Your task to perform on an android device: Open calendar and show me the fourth week of next month Image 0: 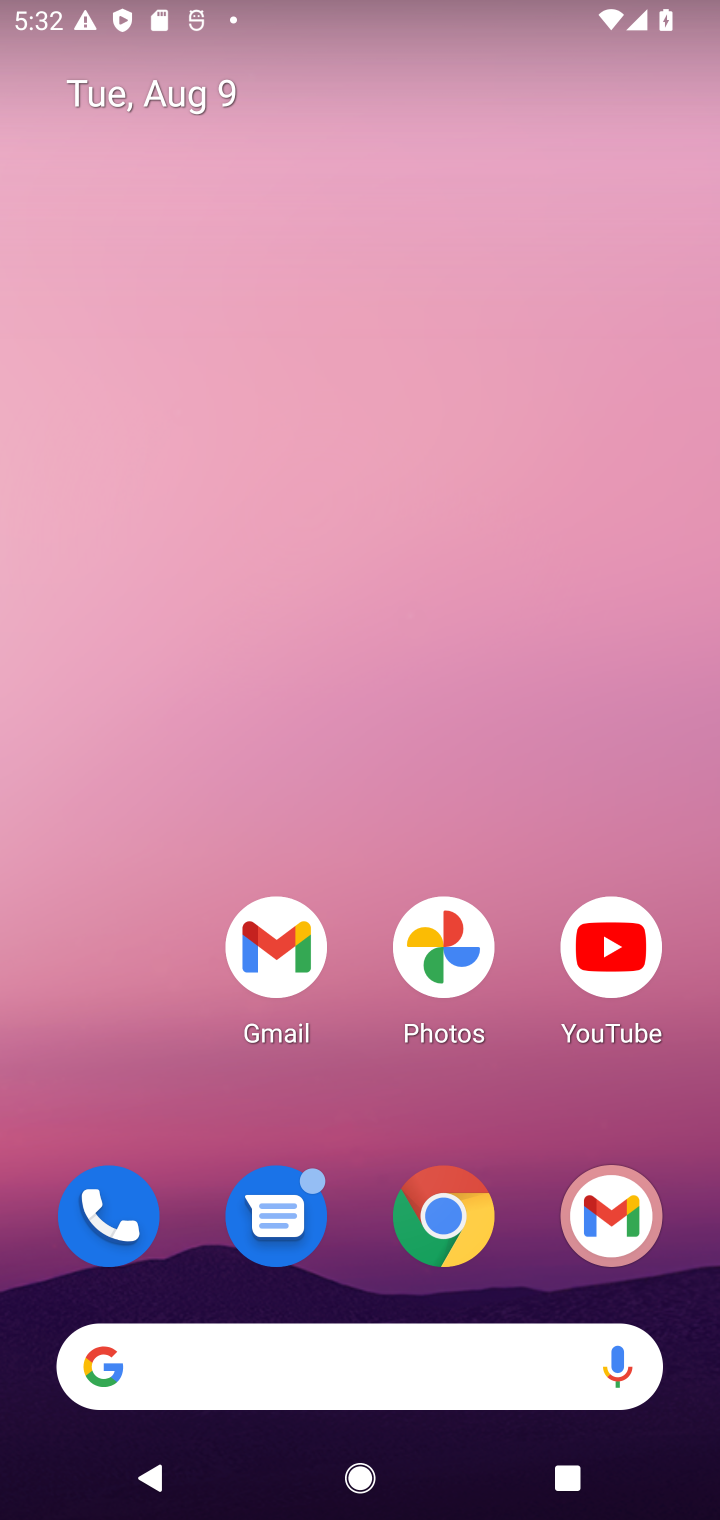
Step 0: drag from (308, 907) to (308, 363)
Your task to perform on an android device: Open calendar and show me the fourth week of next month Image 1: 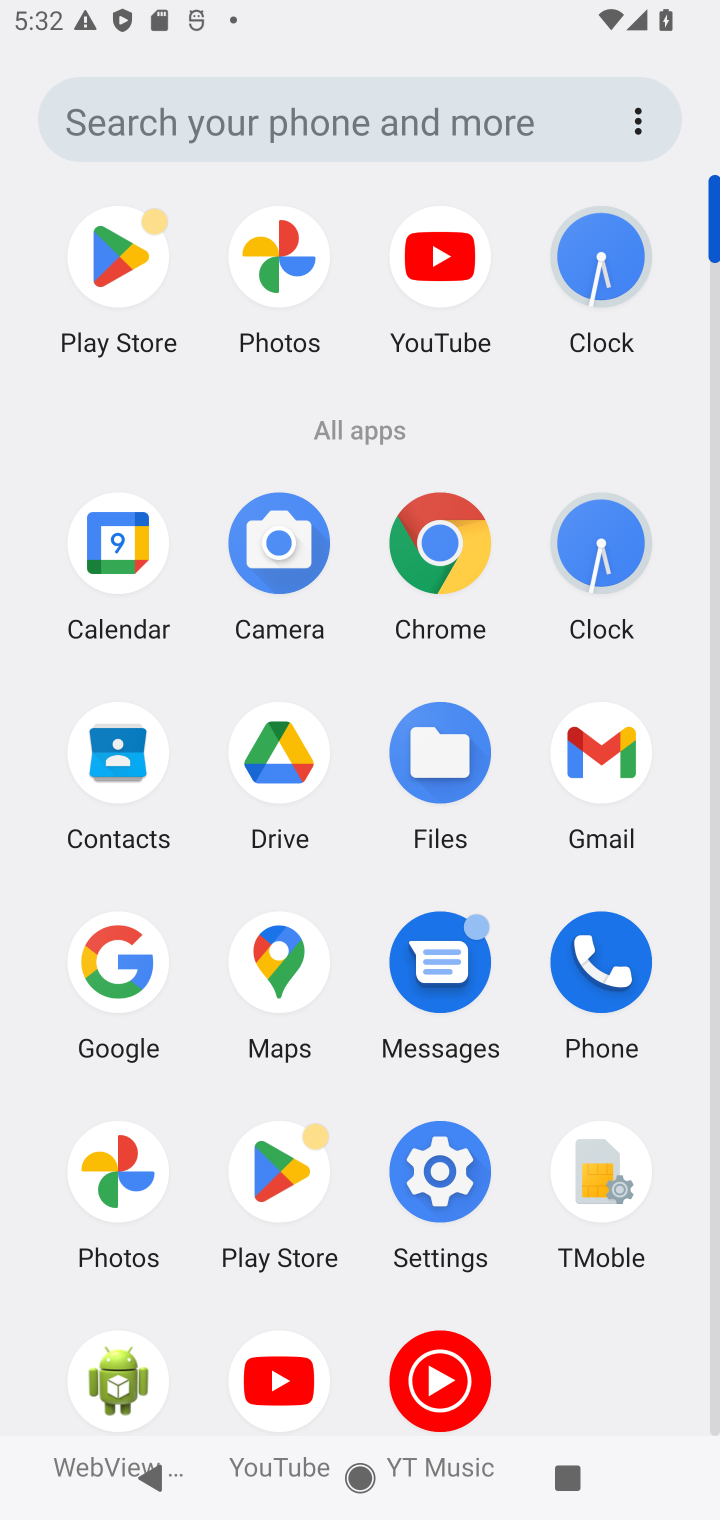
Step 1: click (123, 557)
Your task to perform on an android device: Open calendar and show me the fourth week of next month Image 2: 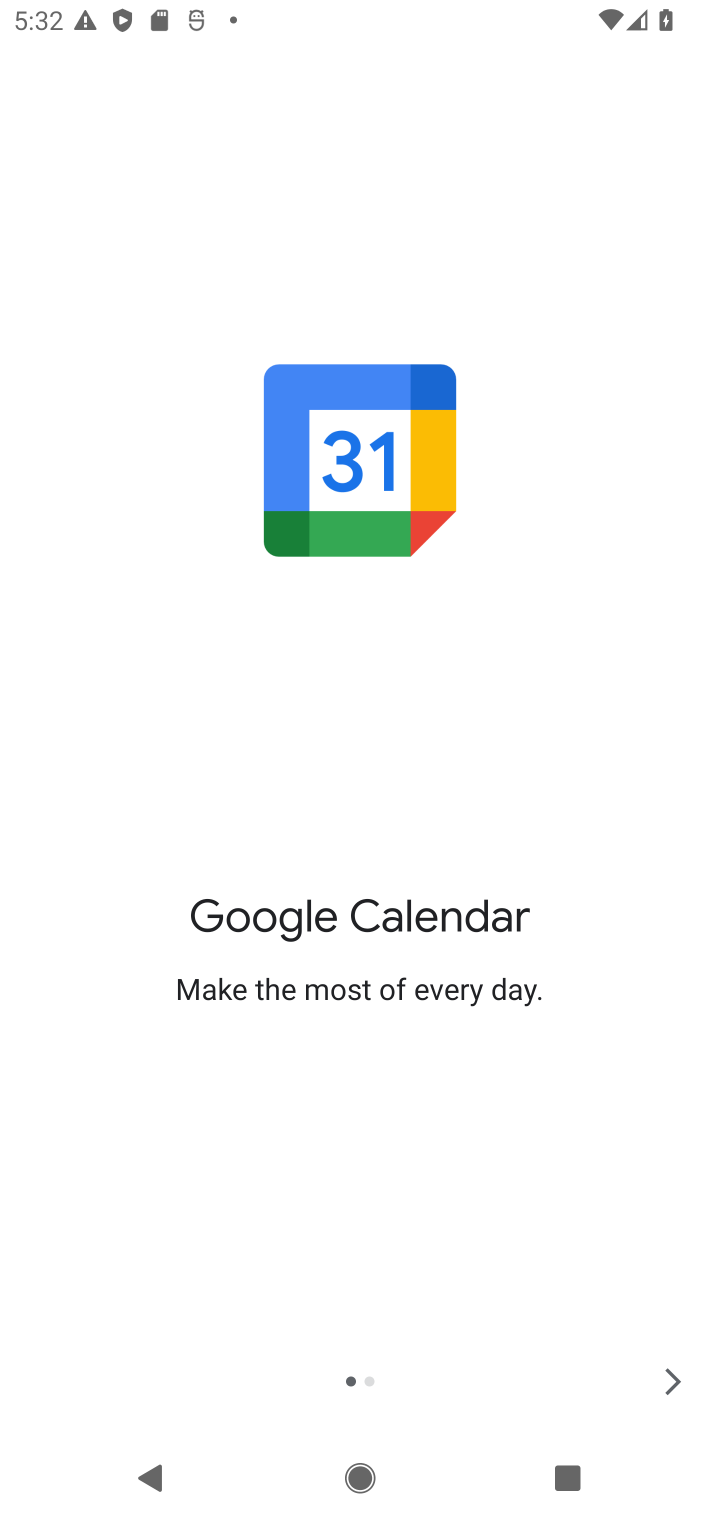
Step 2: click (664, 1382)
Your task to perform on an android device: Open calendar and show me the fourth week of next month Image 3: 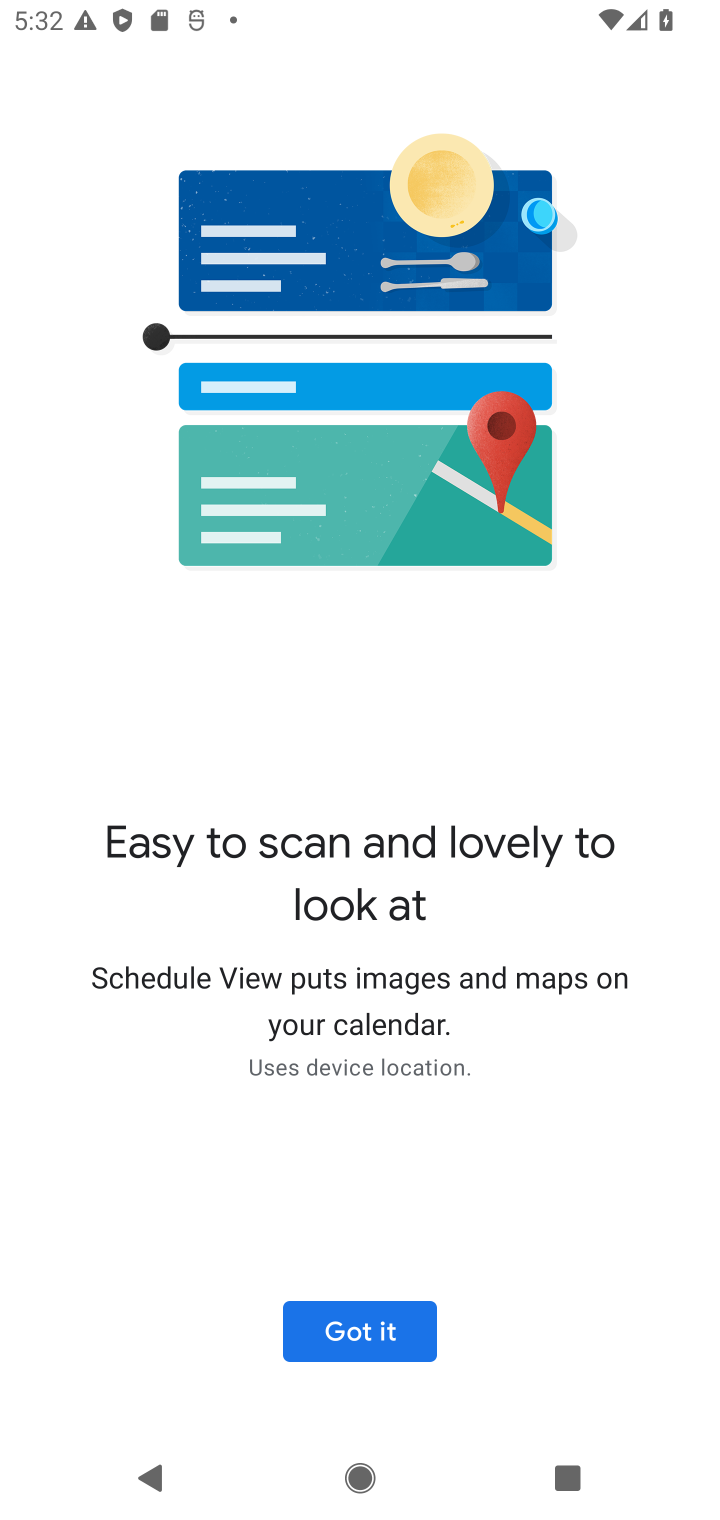
Step 3: click (361, 1336)
Your task to perform on an android device: Open calendar and show me the fourth week of next month Image 4: 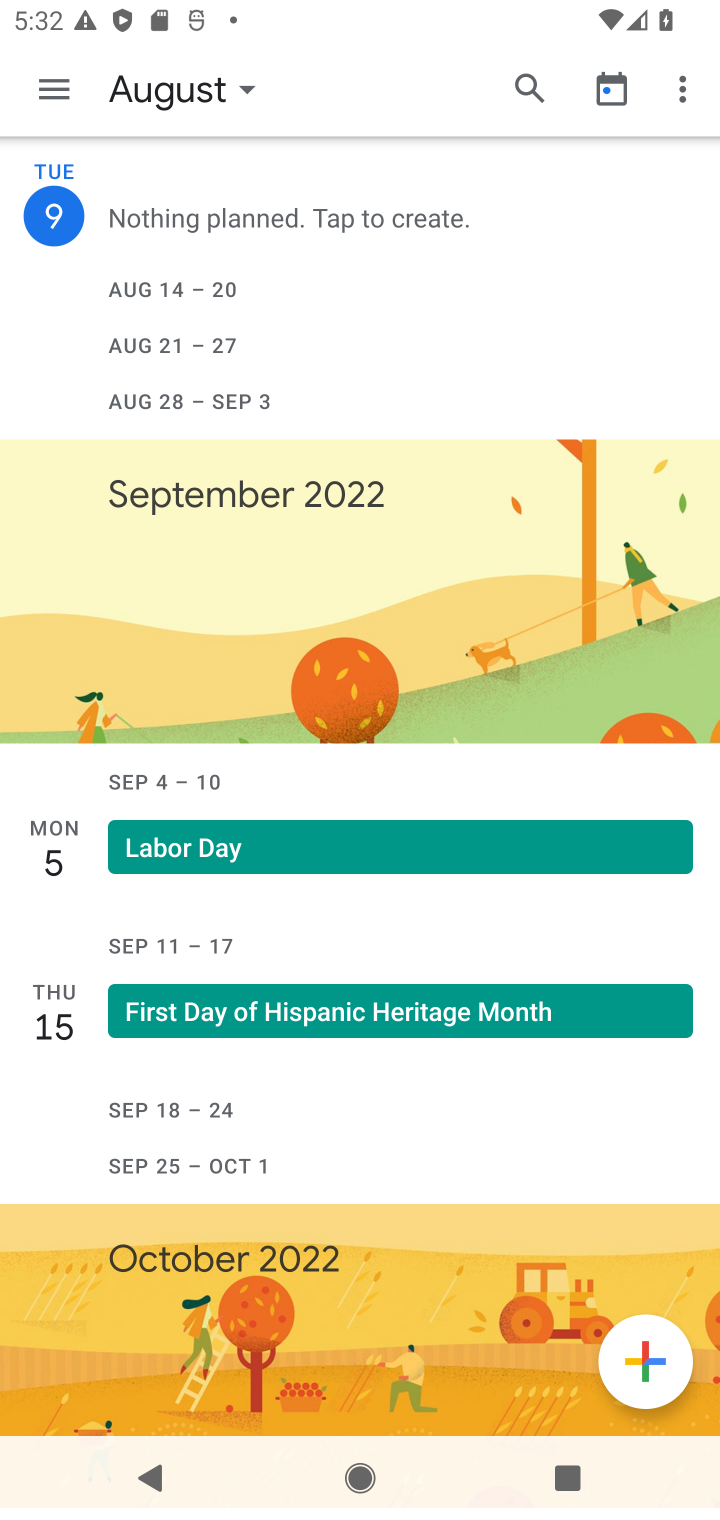
Step 4: click (168, 69)
Your task to perform on an android device: Open calendar and show me the fourth week of next month Image 5: 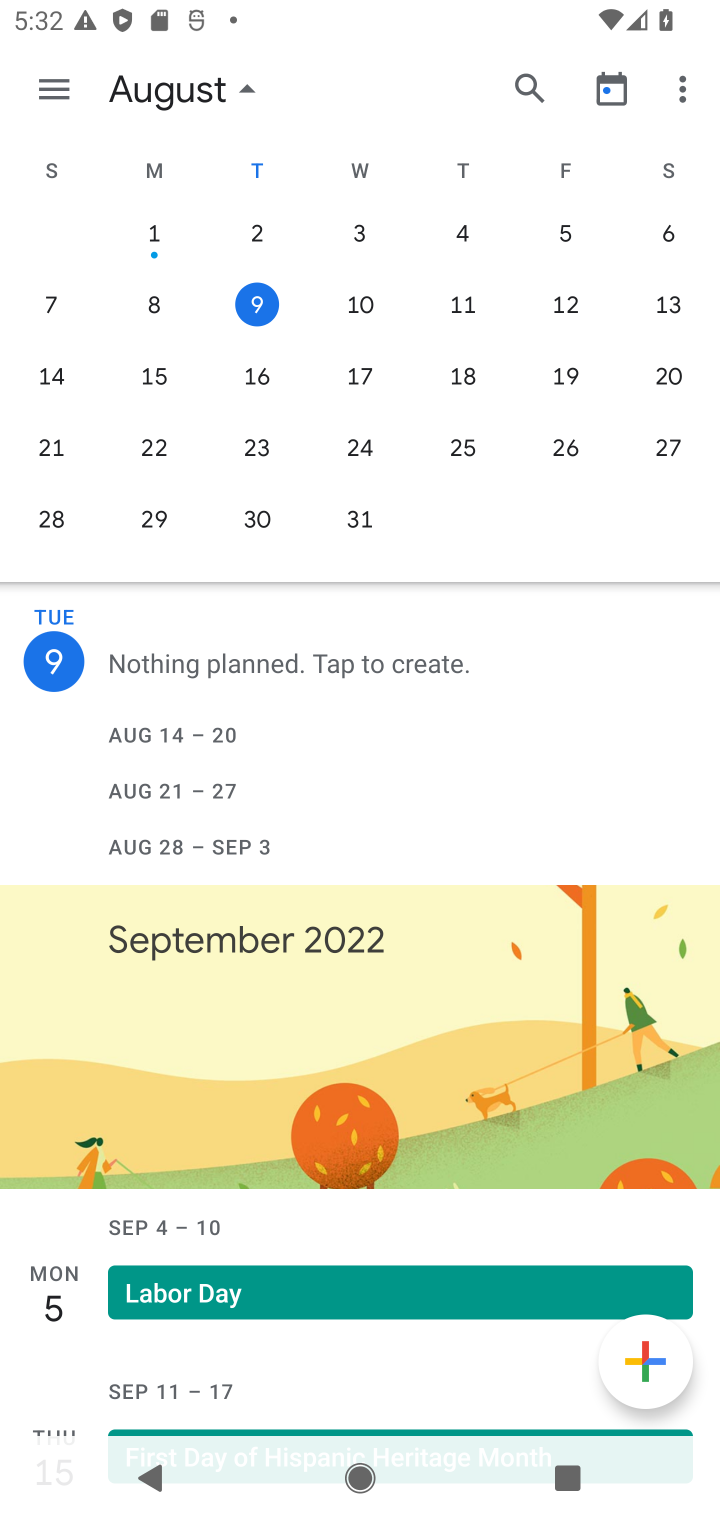
Step 5: drag from (439, 409) to (33, 599)
Your task to perform on an android device: Open calendar and show me the fourth week of next month Image 6: 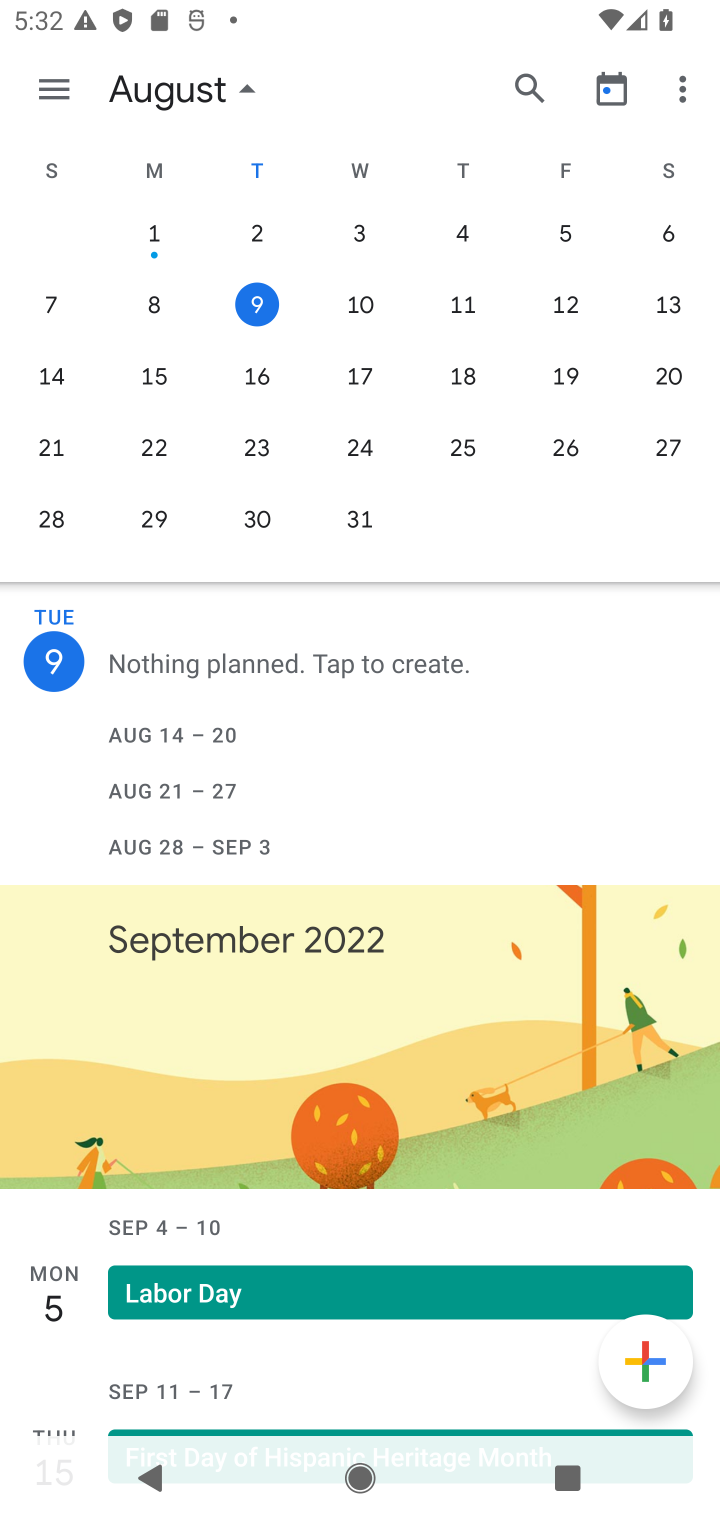
Step 6: click (43, 436)
Your task to perform on an android device: Open calendar and show me the fourth week of next month Image 7: 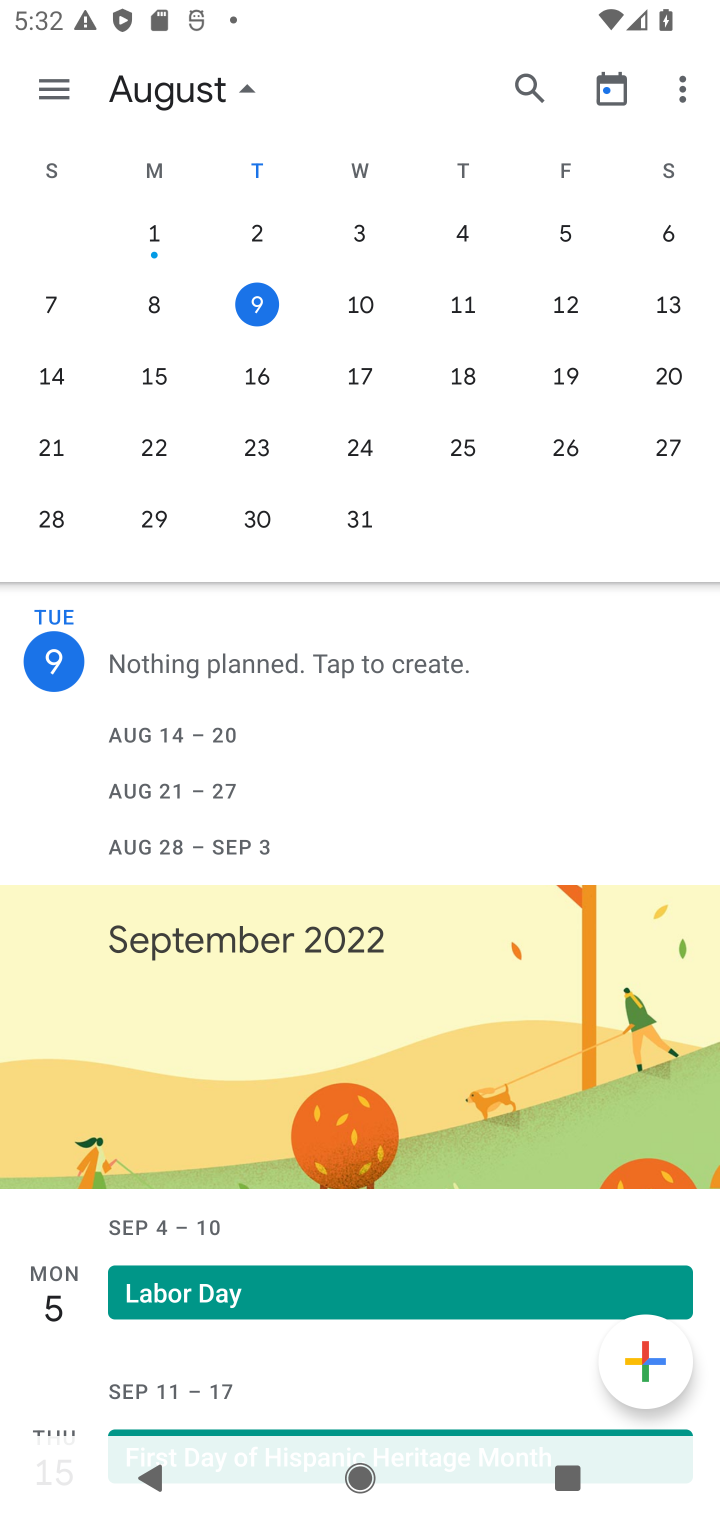
Step 7: drag from (663, 496) to (9, 601)
Your task to perform on an android device: Open calendar and show me the fourth week of next month Image 8: 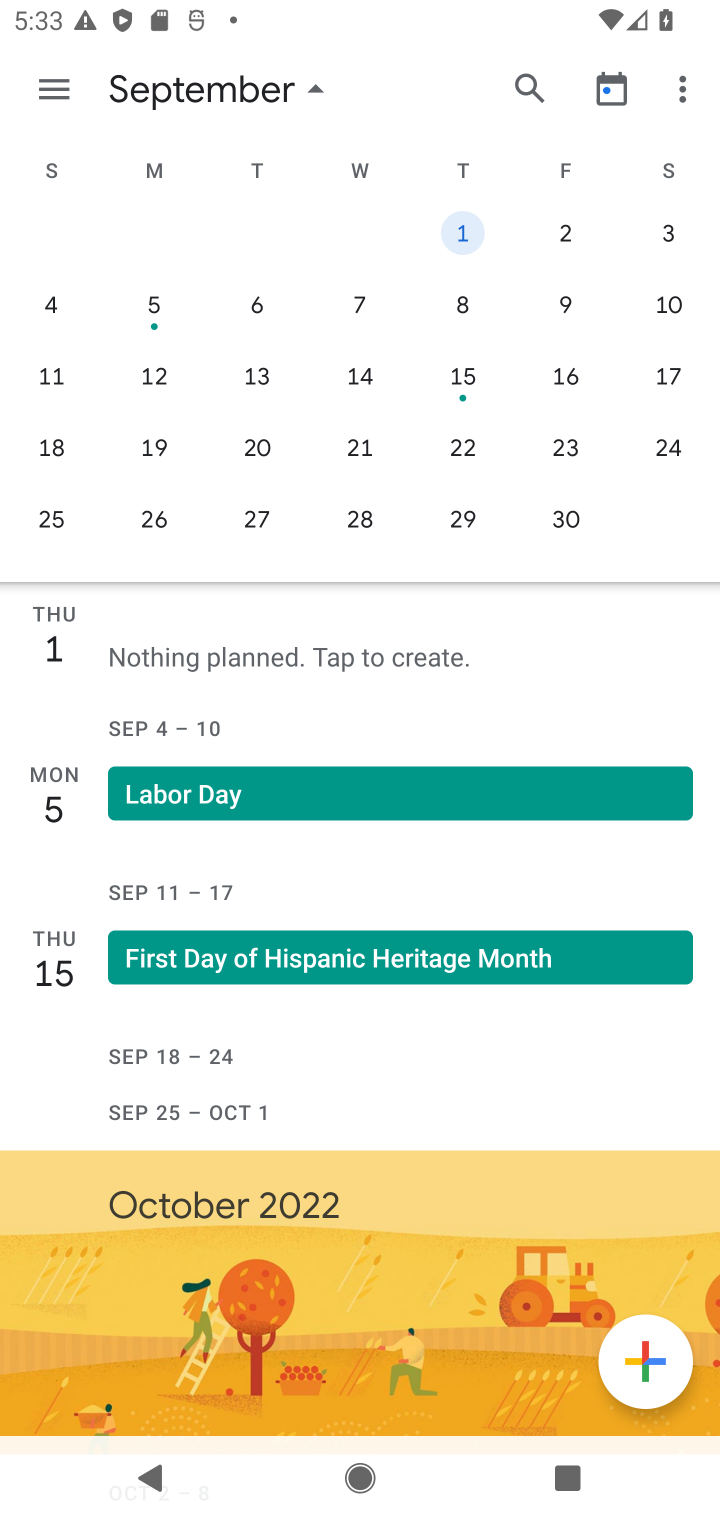
Step 8: click (46, 452)
Your task to perform on an android device: Open calendar and show me the fourth week of next month Image 9: 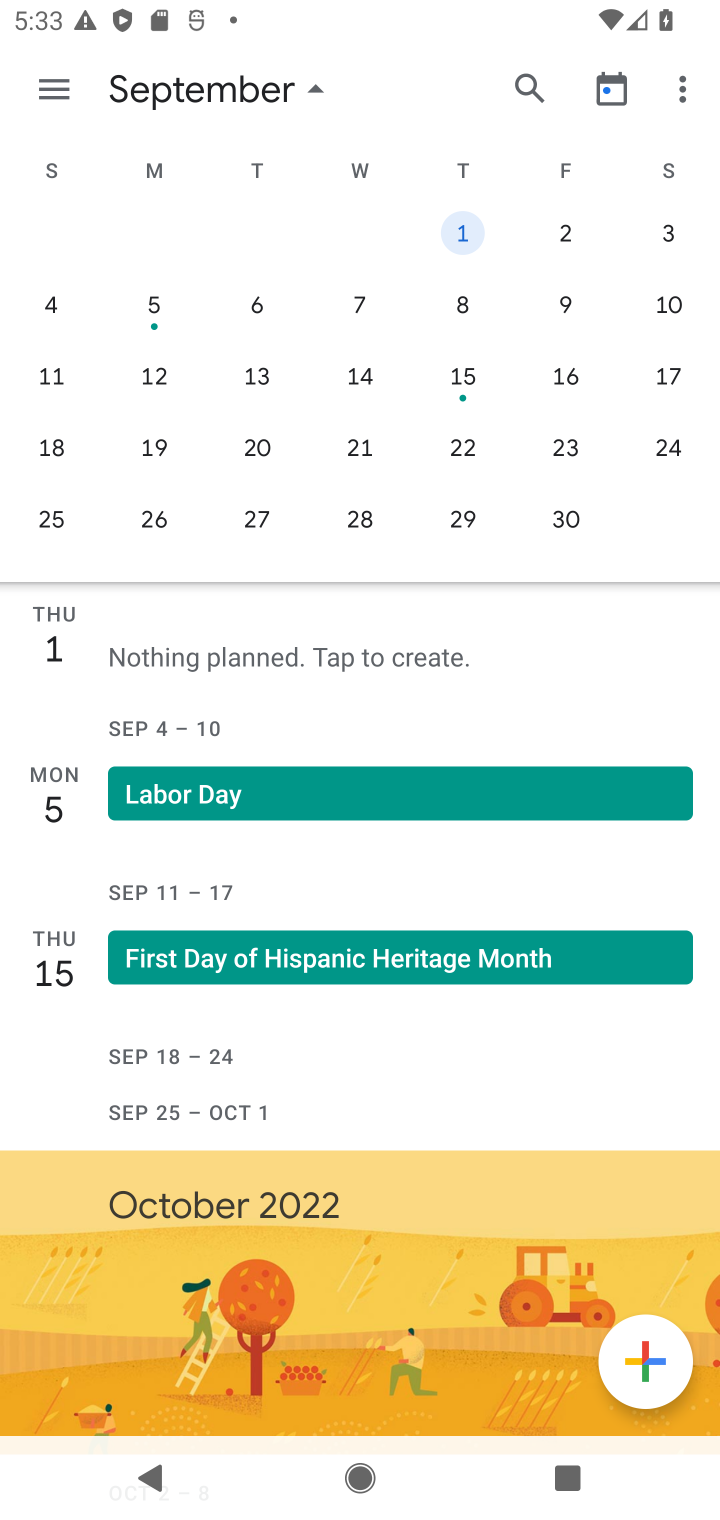
Step 9: click (56, 455)
Your task to perform on an android device: Open calendar and show me the fourth week of next month Image 10: 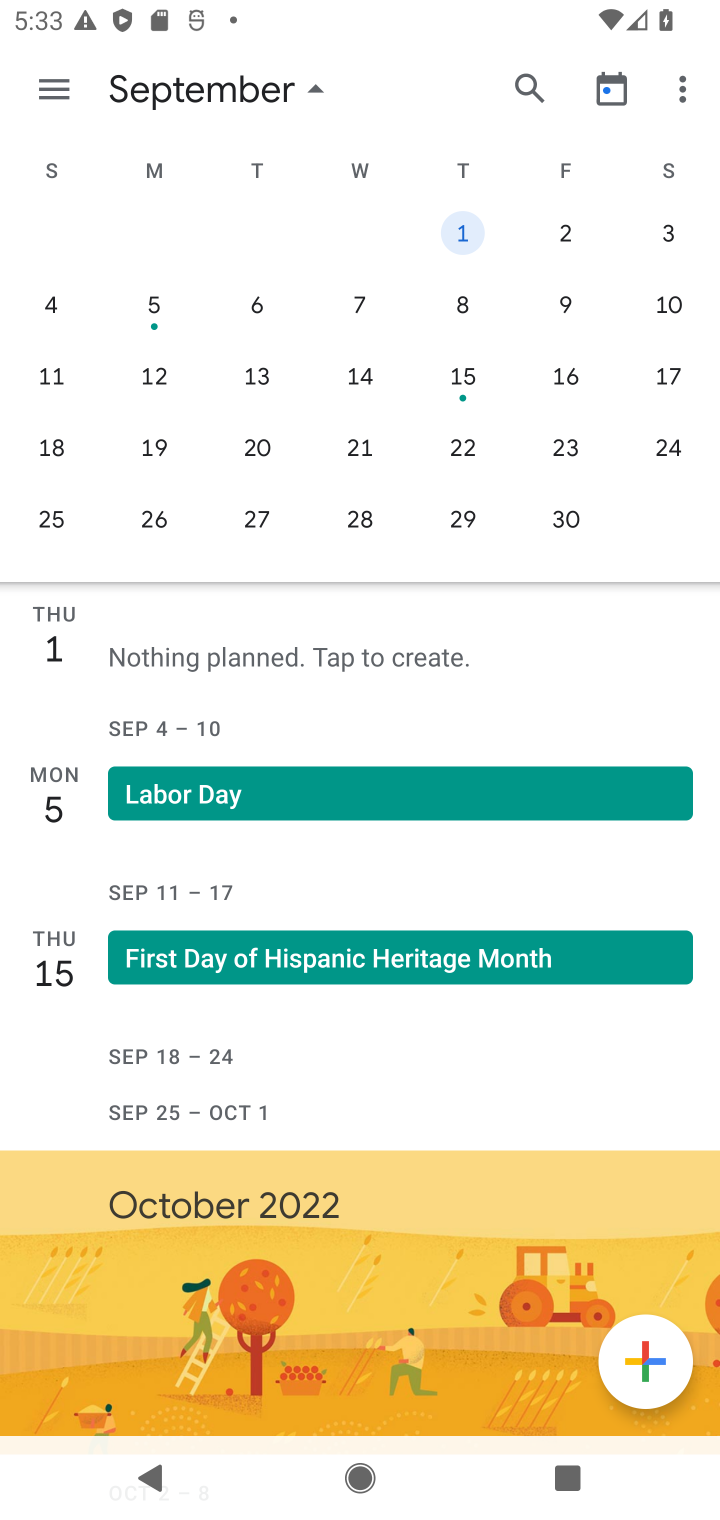
Step 10: click (46, 442)
Your task to perform on an android device: Open calendar and show me the fourth week of next month Image 11: 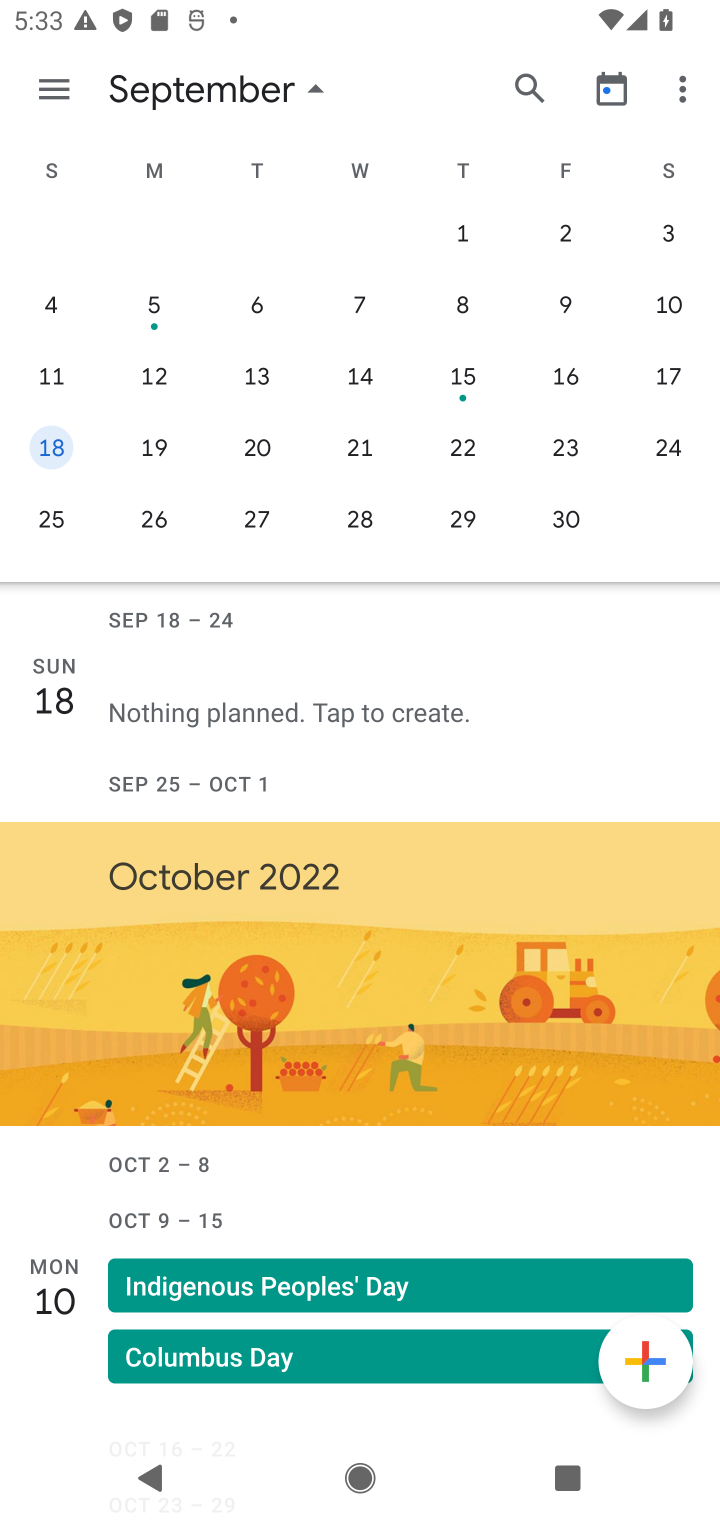
Step 11: task complete